Your task to perform on an android device: toggle notification dots Image 0: 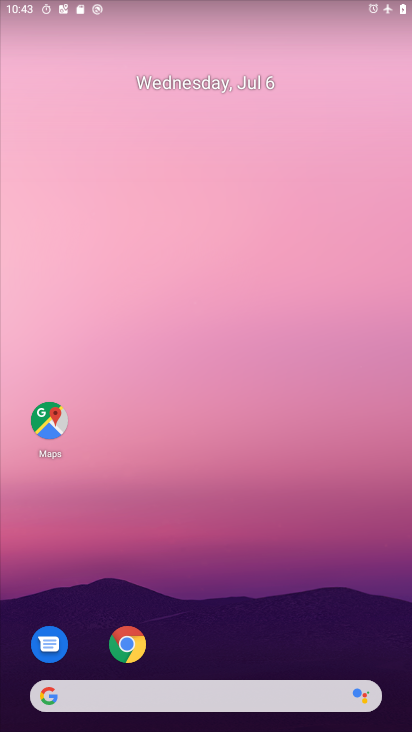
Step 0: drag from (253, 652) to (322, 44)
Your task to perform on an android device: toggle notification dots Image 1: 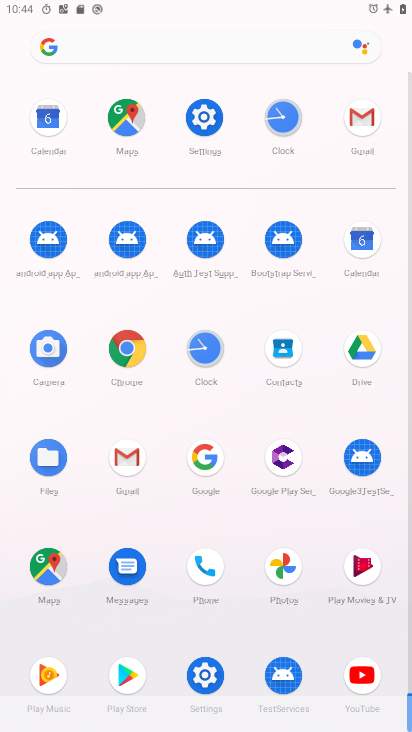
Step 1: click (212, 132)
Your task to perform on an android device: toggle notification dots Image 2: 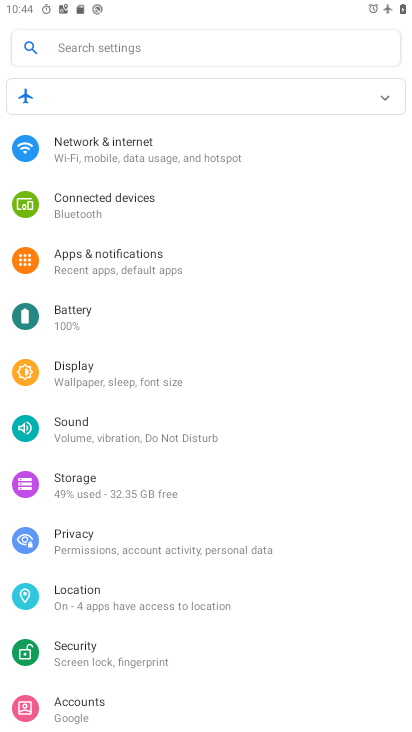
Step 2: click (142, 270)
Your task to perform on an android device: toggle notification dots Image 3: 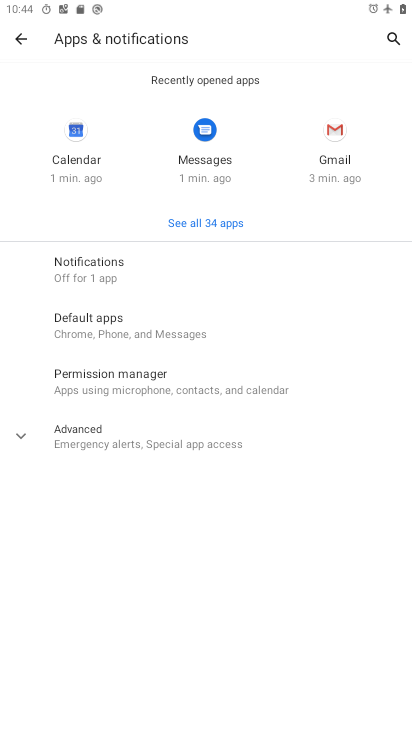
Step 3: click (123, 268)
Your task to perform on an android device: toggle notification dots Image 4: 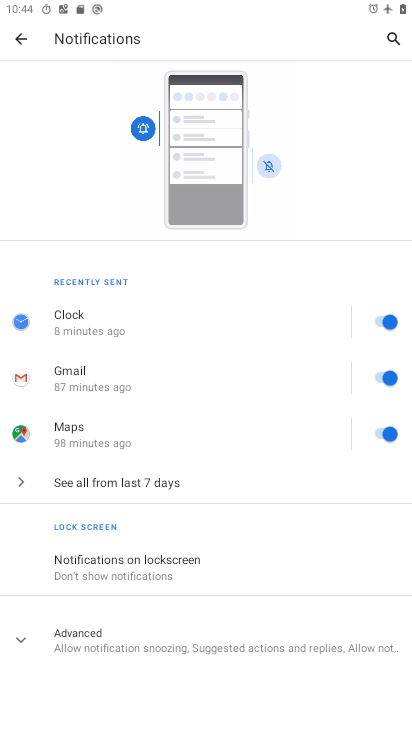
Step 4: click (99, 629)
Your task to perform on an android device: toggle notification dots Image 5: 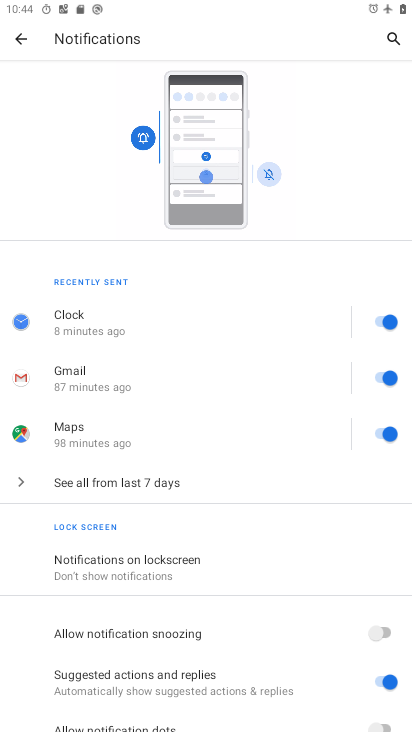
Step 5: drag from (217, 509) to (226, 245)
Your task to perform on an android device: toggle notification dots Image 6: 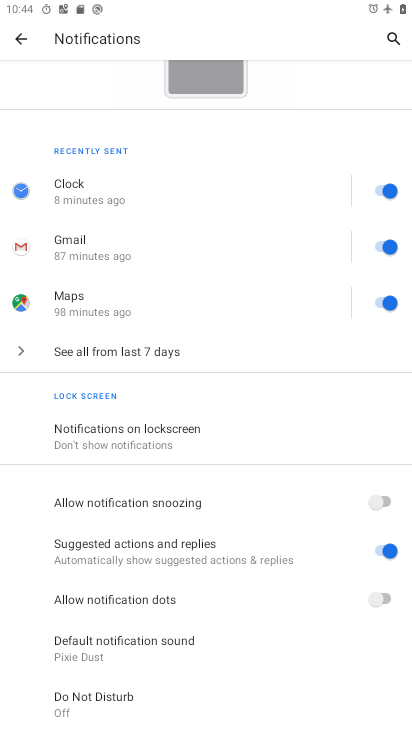
Step 6: drag from (170, 609) to (226, 341)
Your task to perform on an android device: toggle notification dots Image 7: 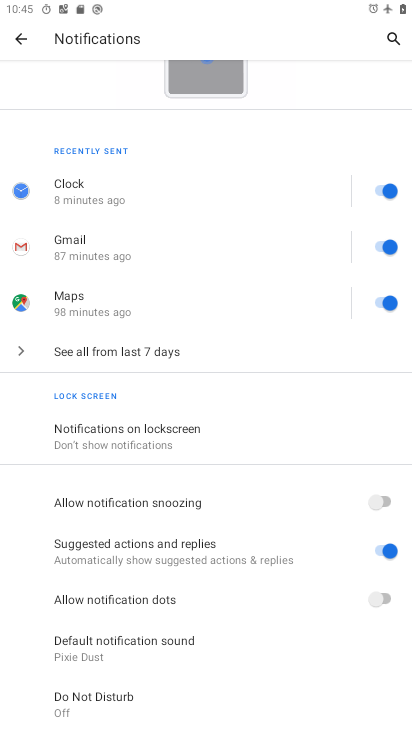
Step 7: click (213, 603)
Your task to perform on an android device: toggle notification dots Image 8: 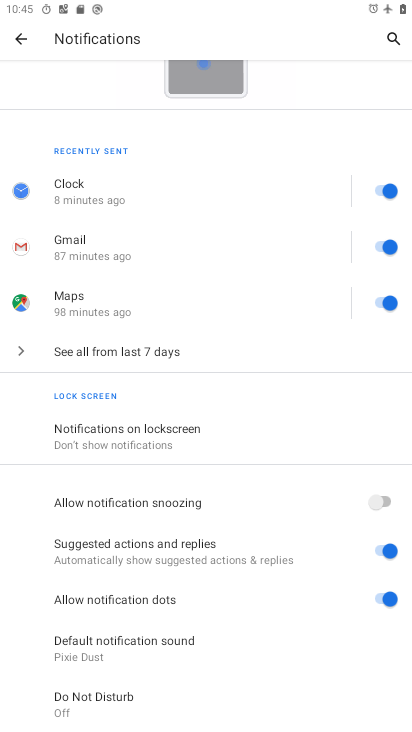
Step 8: task complete